Your task to perform on an android device: turn off wifi Image 0: 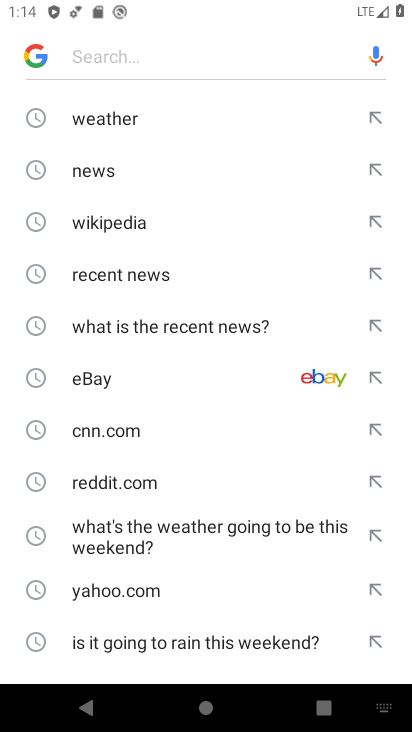
Step 0: drag from (316, 3) to (346, 348)
Your task to perform on an android device: turn off wifi Image 1: 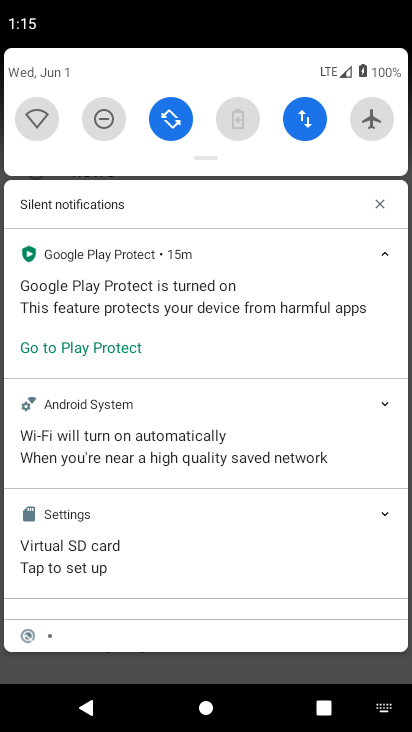
Step 1: task complete